Your task to perform on an android device: turn off priority inbox in the gmail app Image 0: 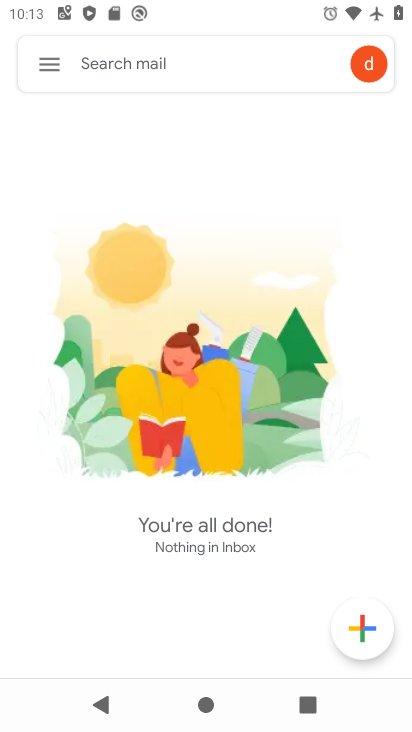
Step 0: click (48, 62)
Your task to perform on an android device: turn off priority inbox in the gmail app Image 1: 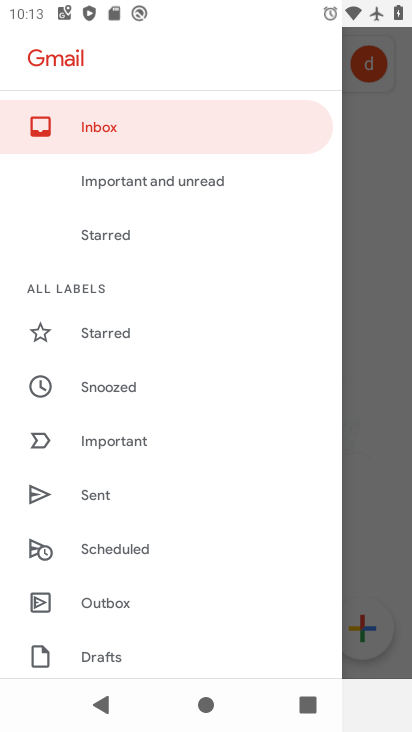
Step 1: drag from (205, 576) to (221, 315)
Your task to perform on an android device: turn off priority inbox in the gmail app Image 2: 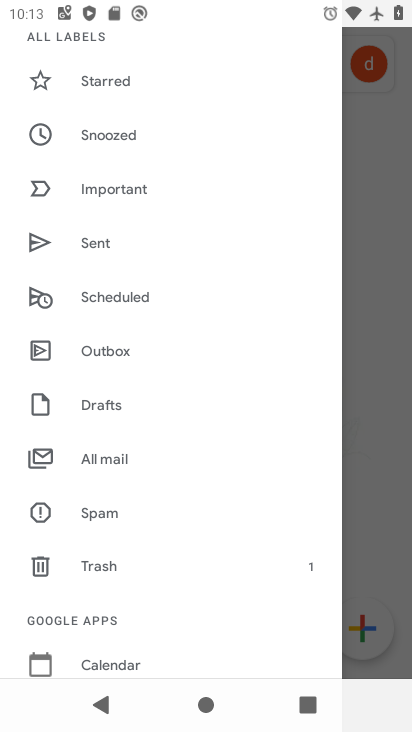
Step 2: drag from (147, 617) to (185, 404)
Your task to perform on an android device: turn off priority inbox in the gmail app Image 3: 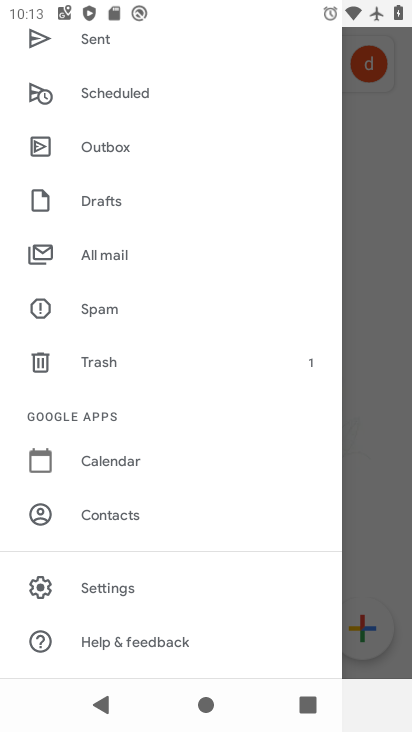
Step 3: drag from (185, 553) to (193, 294)
Your task to perform on an android device: turn off priority inbox in the gmail app Image 4: 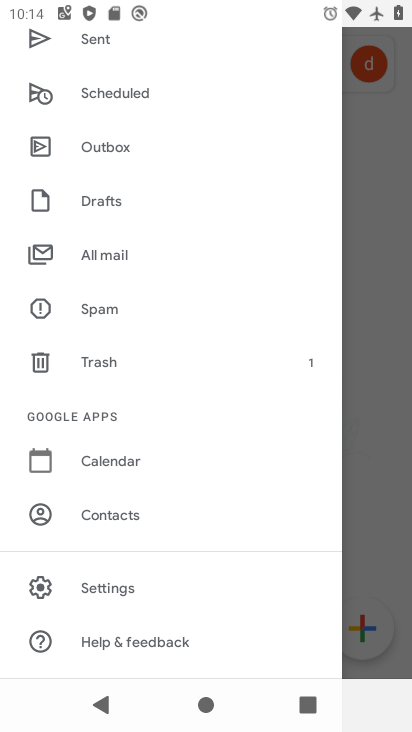
Step 4: click (103, 586)
Your task to perform on an android device: turn off priority inbox in the gmail app Image 5: 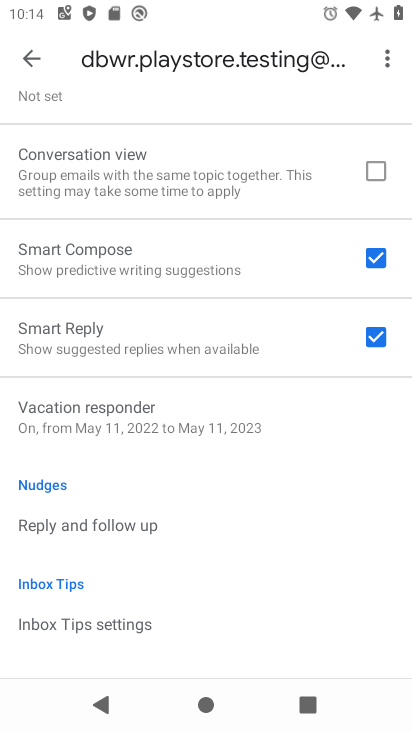
Step 5: drag from (324, 193) to (291, 475)
Your task to perform on an android device: turn off priority inbox in the gmail app Image 6: 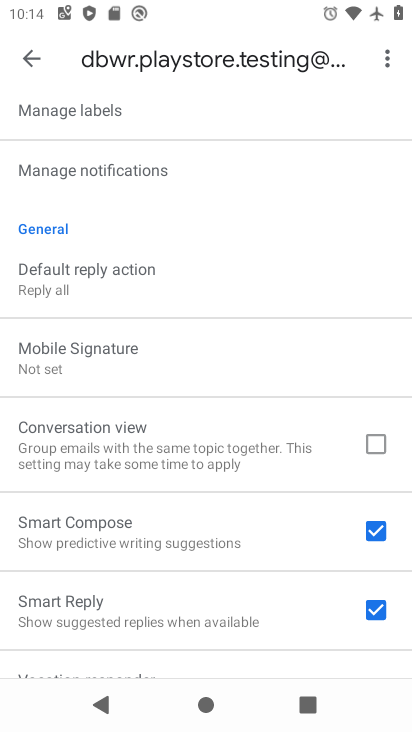
Step 6: drag from (252, 257) to (249, 587)
Your task to perform on an android device: turn off priority inbox in the gmail app Image 7: 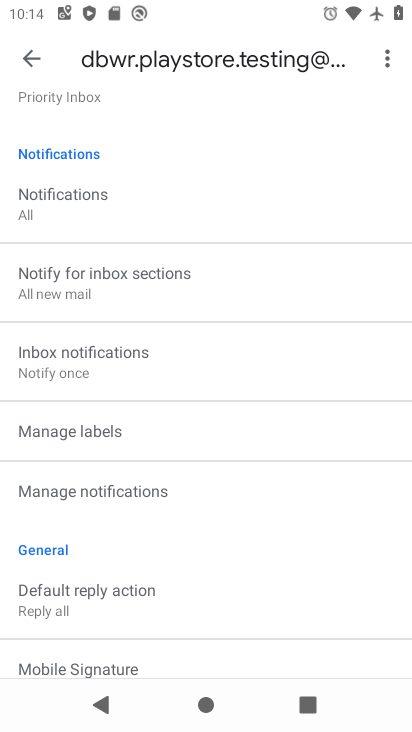
Step 7: drag from (234, 299) to (212, 525)
Your task to perform on an android device: turn off priority inbox in the gmail app Image 8: 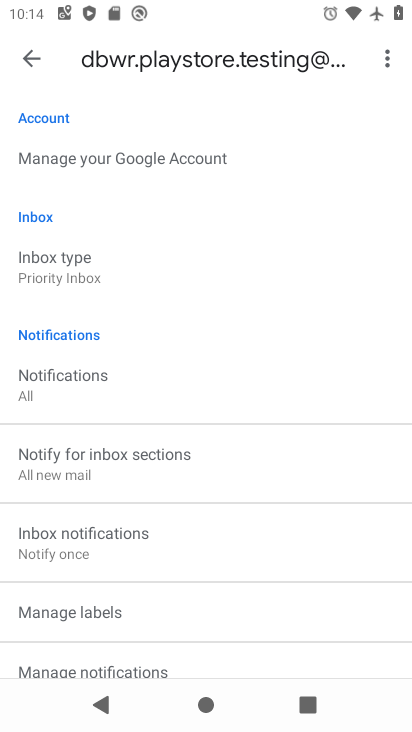
Step 8: click (37, 258)
Your task to perform on an android device: turn off priority inbox in the gmail app Image 9: 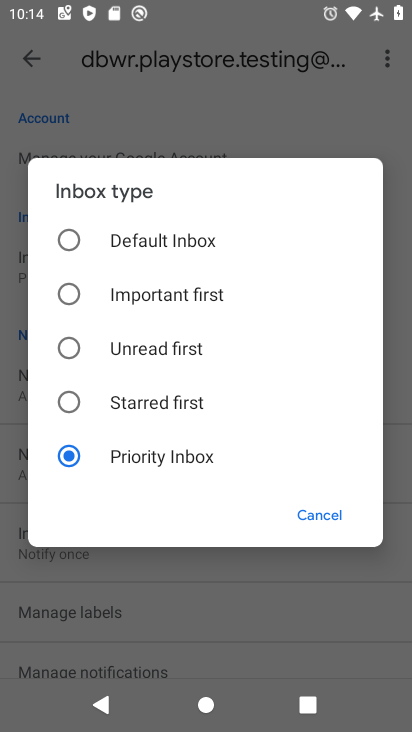
Step 9: click (73, 236)
Your task to perform on an android device: turn off priority inbox in the gmail app Image 10: 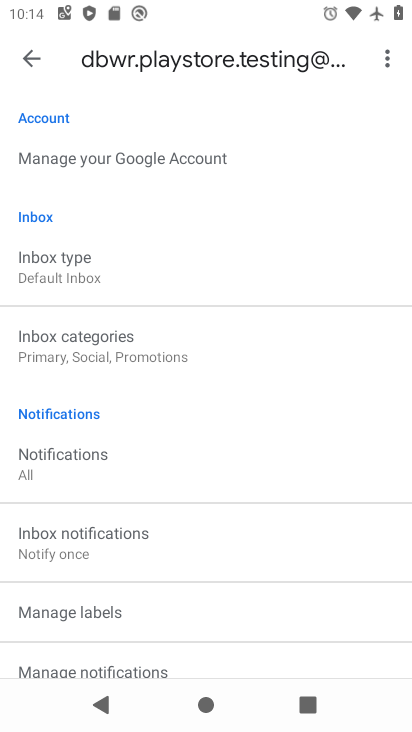
Step 10: task complete